Your task to perform on an android device: Open settings on Google Maps Image 0: 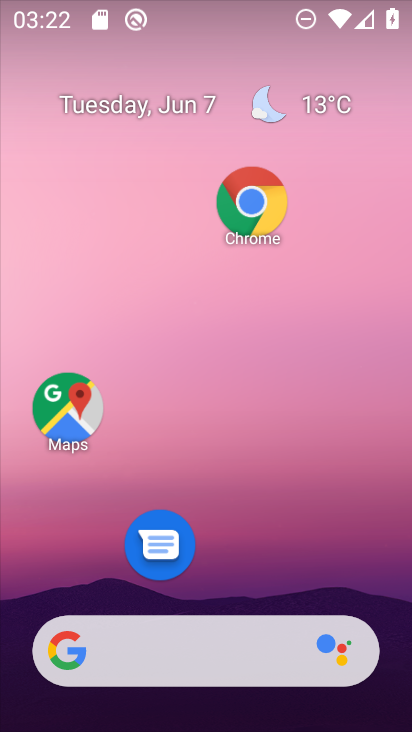
Step 0: click (66, 394)
Your task to perform on an android device: Open settings on Google Maps Image 1: 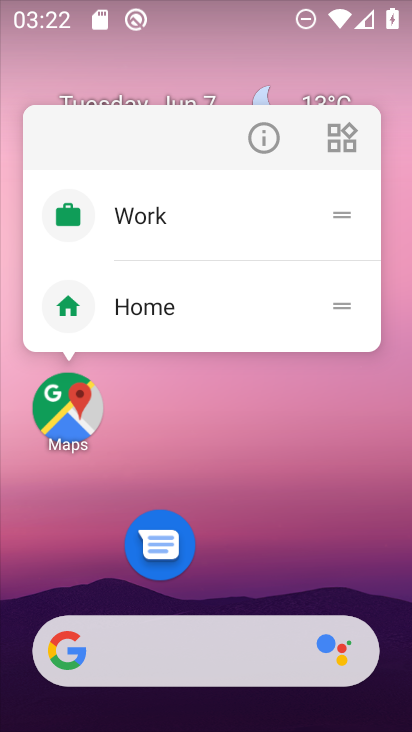
Step 1: click (72, 391)
Your task to perform on an android device: Open settings on Google Maps Image 2: 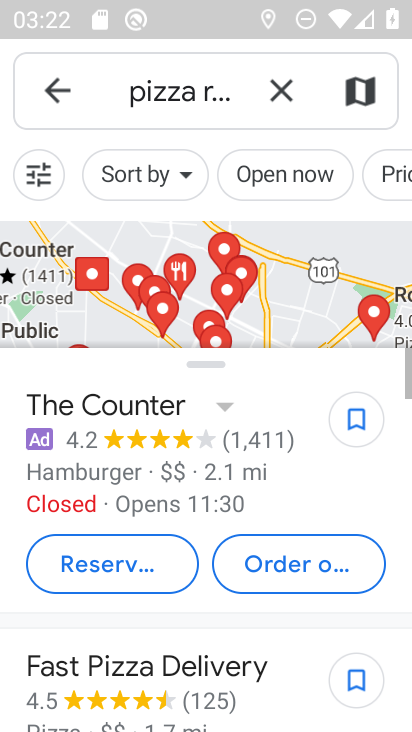
Step 2: click (280, 83)
Your task to perform on an android device: Open settings on Google Maps Image 3: 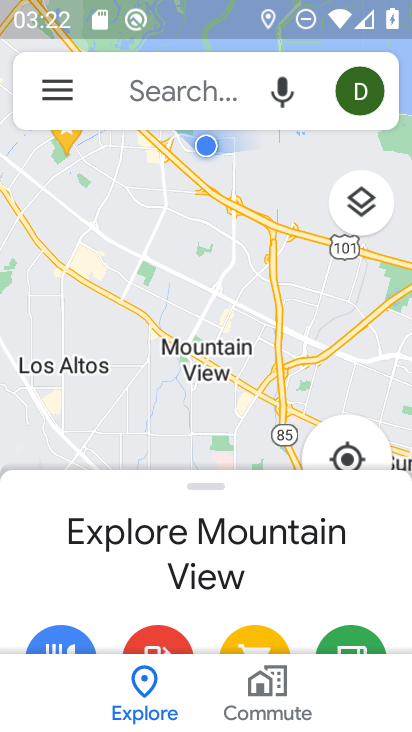
Step 3: click (50, 88)
Your task to perform on an android device: Open settings on Google Maps Image 4: 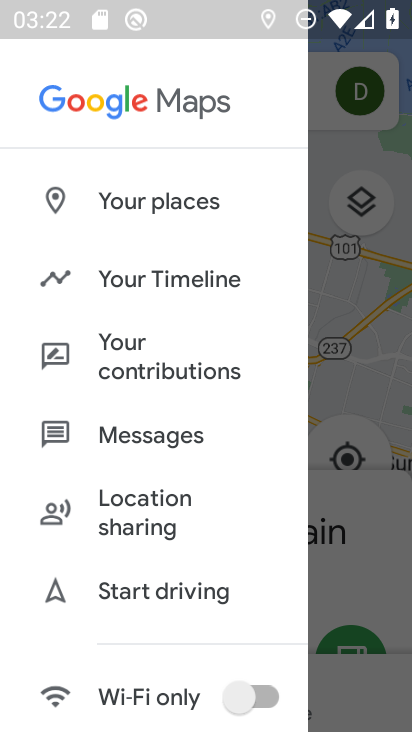
Step 4: drag from (192, 638) to (200, 229)
Your task to perform on an android device: Open settings on Google Maps Image 5: 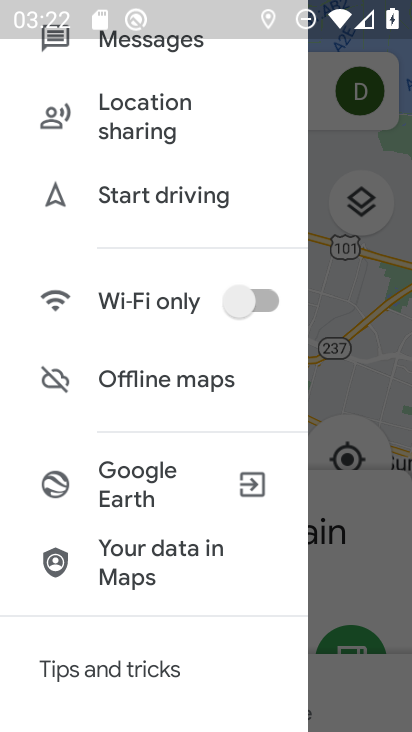
Step 5: drag from (136, 576) to (149, 237)
Your task to perform on an android device: Open settings on Google Maps Image 6: 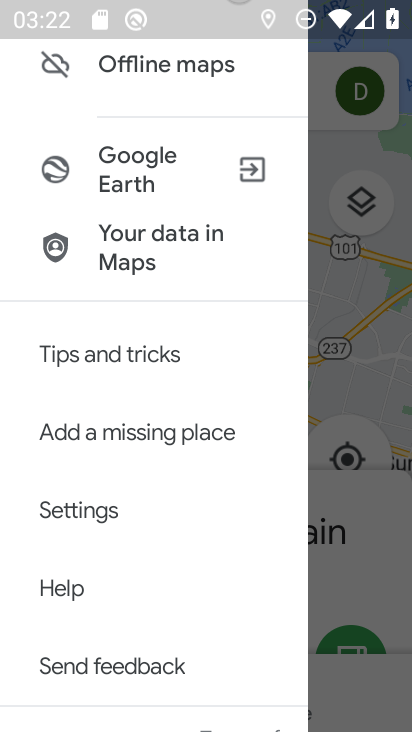
Step 6: click (107, 499)
Your task to perform on an android device: Open settings on Google Maps Image 7: 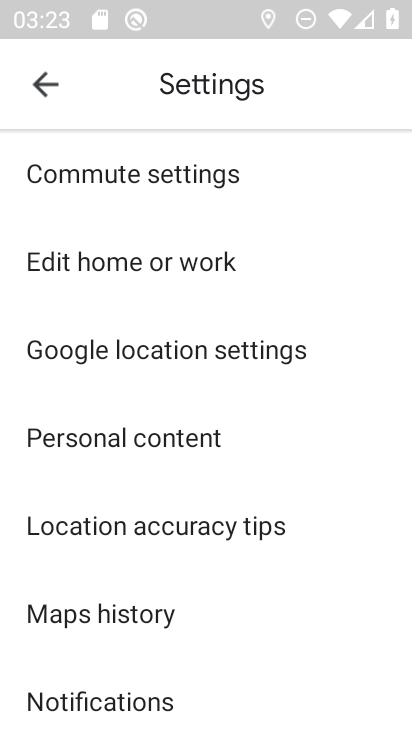
Step 7: task complete